Your task to perform on an android device: Open internet settings Image 0: 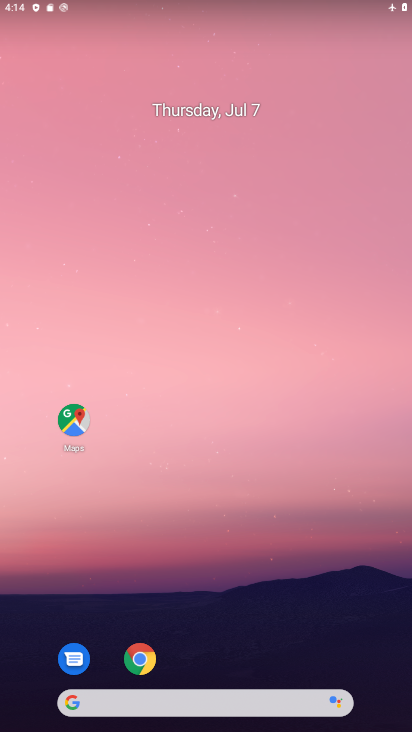
Step 0: drag from (368, 637) to (402, 190)
Your task to perform on an android device: Open internet settings Image 1: 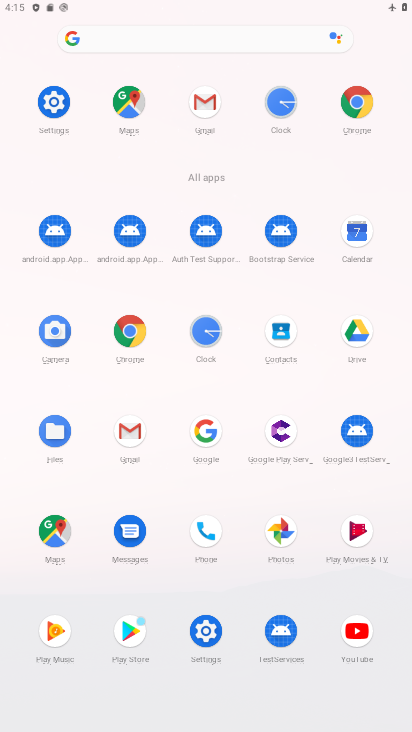
Step 1: click (197, 643)
Your task to perform on an android device: Open internet settings Image 2: 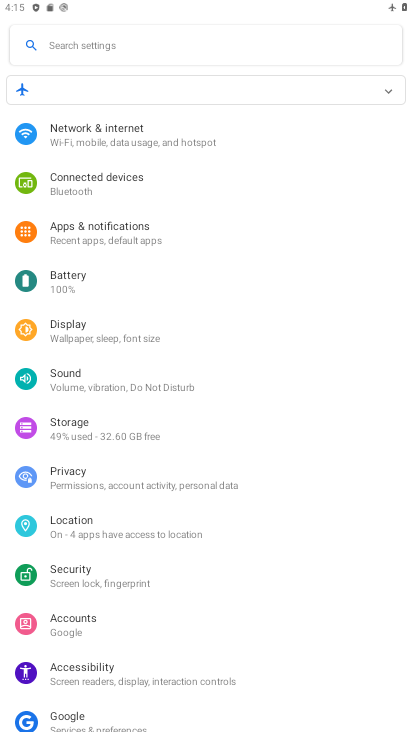
Step 2: click (143, 146)
Your task to perform on an android device: Open internet settings Image 3: 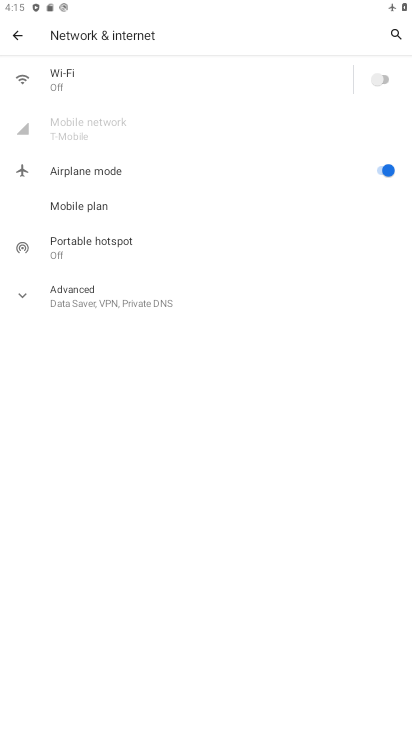
Step 3: task complete